Your task to perform on an android device: toggle javascript in the chrome app Image 0: 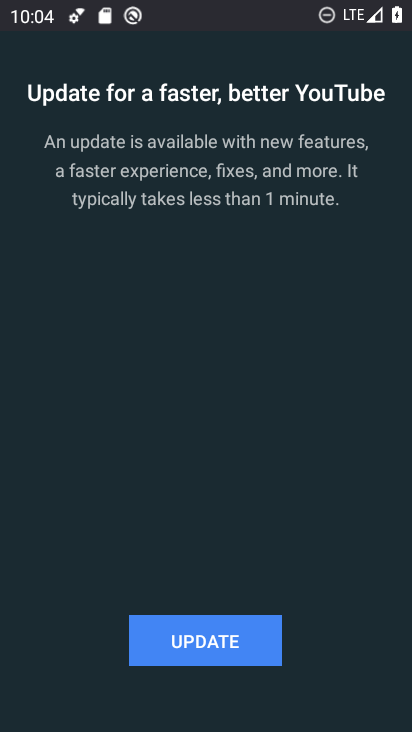
Step 0: drag from (329, 485) to (305, 91)
Your task to perform on an android device: toggle javascript in the chrome app Image 1: 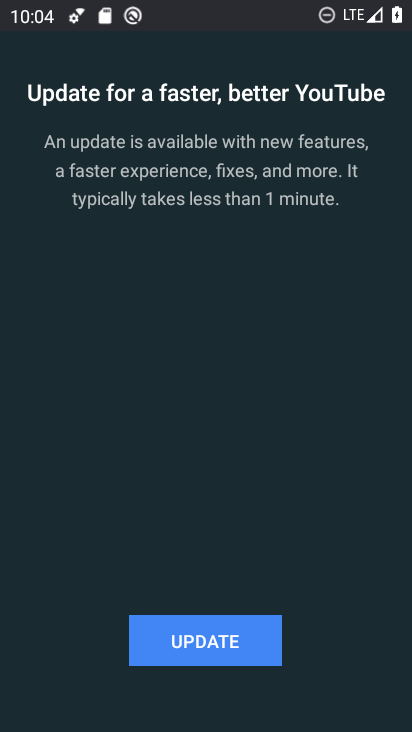
Step 1: press home button
Your task to perform on an android device: toggle javascript in the chrome app Image 2: 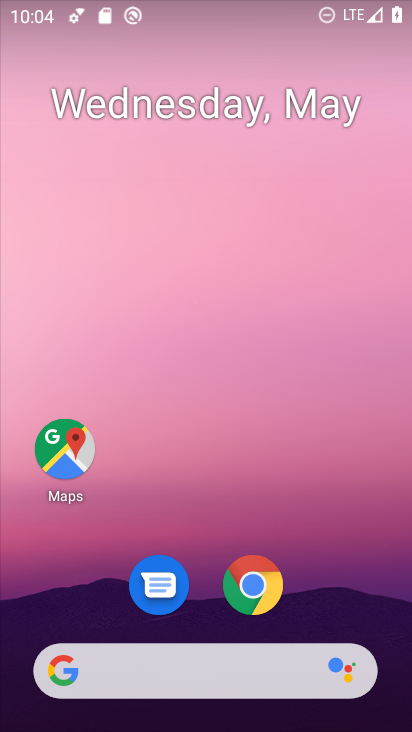
Step 2: click (245, 581)
Your task to perform on an android device: toggle javascript in the chrome app Image 3: 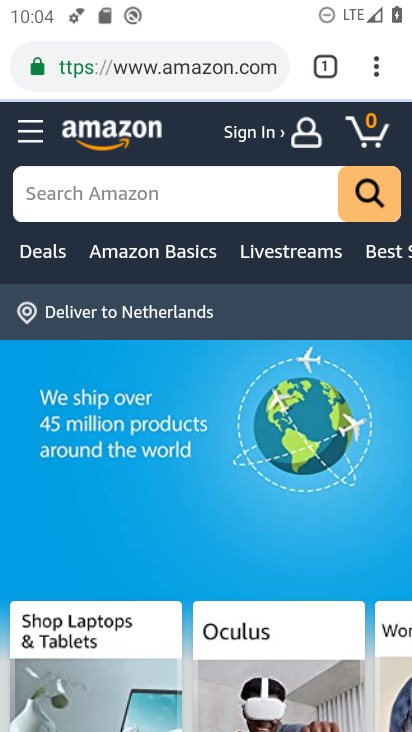
Step 3: click (371, 68)
Your task to perform on an android device: toggle javascript in the chrome app Image 4: 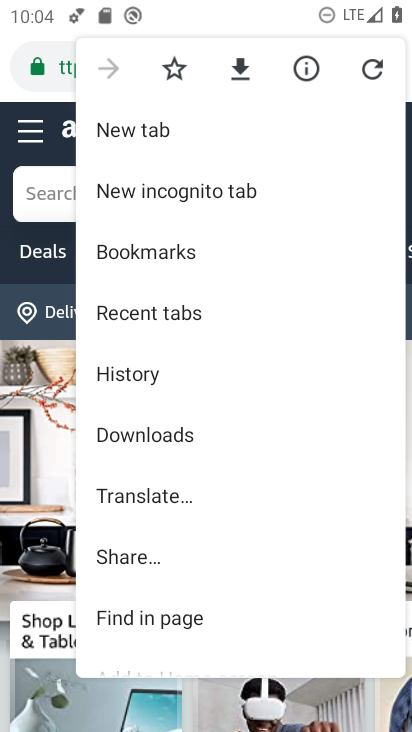
Step 4: drag from (285, 529) to (307, 324)
Your task to perform on an android device: toggle javascript in the chrome app Image 5: 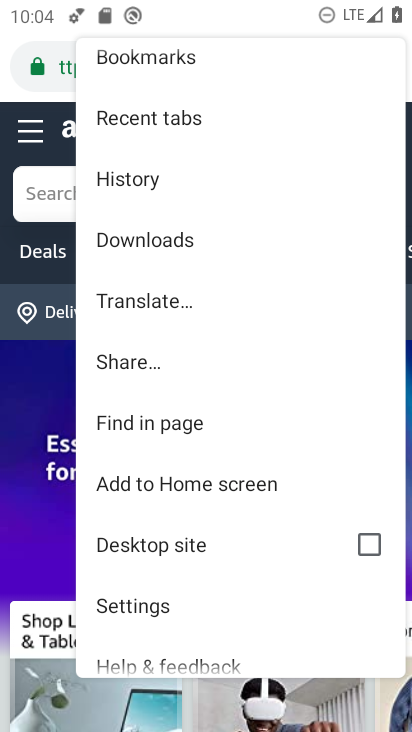
Step 5: click (197, 603)
Your task to perform on an android device: toggle javascript in the chrome app Image 6: 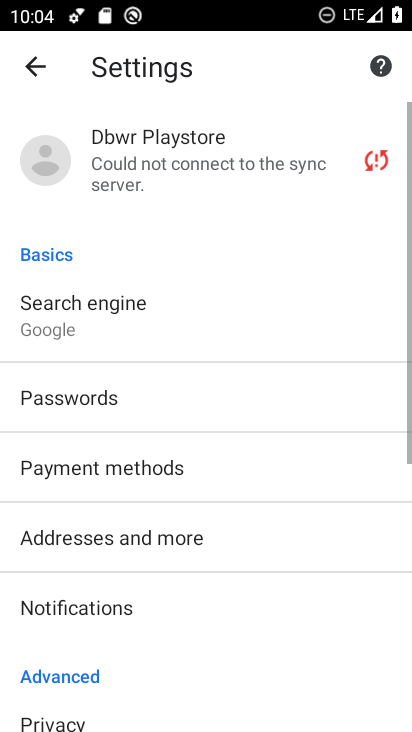
Step 6: drag from (218, 551) to (262, 237)
Your task to perform on an android device: toggle javascript in the chrome app Image 7: 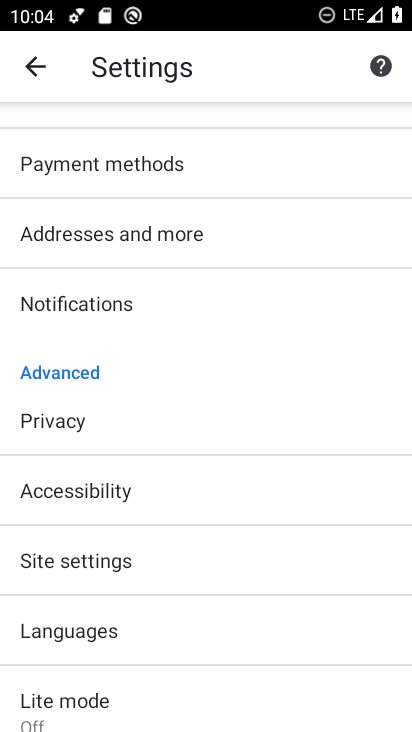
Step 7: click (192, 567)
Your task to perform on an android device: toggle javascript in the chrome app Image 8: 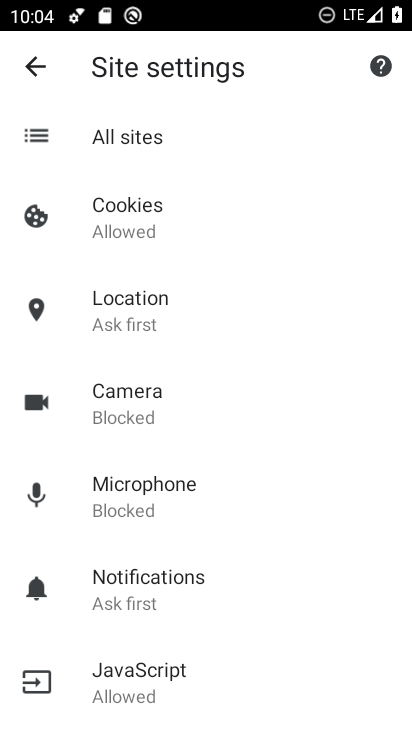
Step 8: click (197, 668)
Your task to perform on an android device: toggle javascript in the chrome app Image 9: 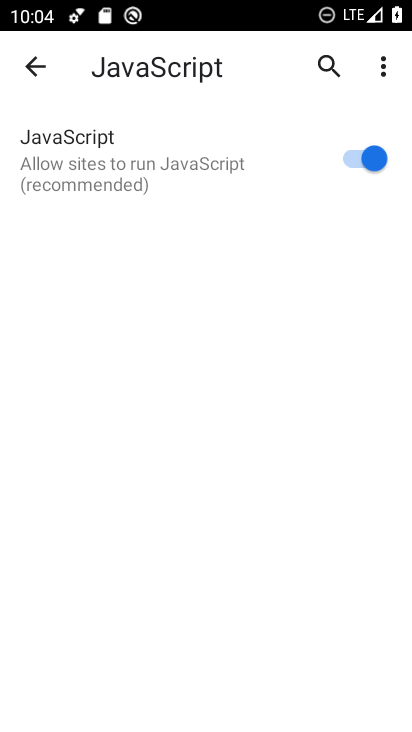
Step 9: click (357, 154)
Your task to perform on an android device: toggle javascript in the chrome app Image 10: 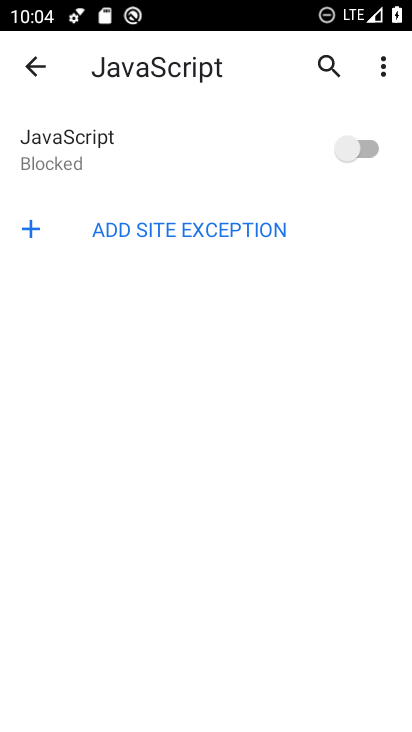
Step 10: task complete